Your task to perform on an android device: toggle priority inbox in the gmail app Image 0: 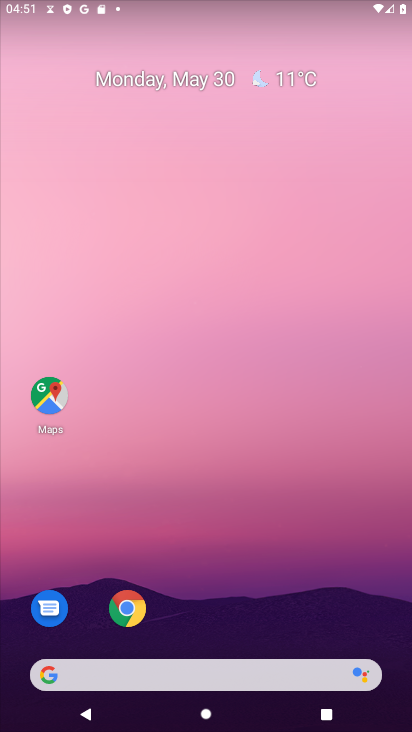
Step 0: drag from (235, 664) to (204, 252)
Your task to perform on an android device: toggle priority inbox in the gmail app Image 1: 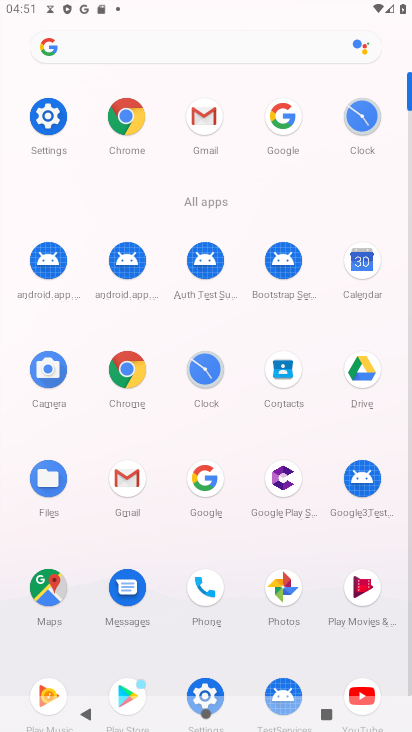
Step 1: click (200, 117)
Your task to perform on an android device: toggle priority inbox in the gmail app Image 2: 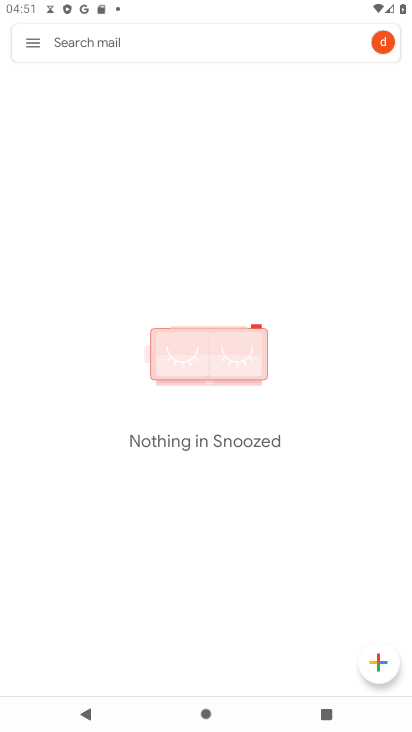
Step 2: click (34, 40)
Your task to perform on an android device: toggle priority inbox in the gmail app Image 3: 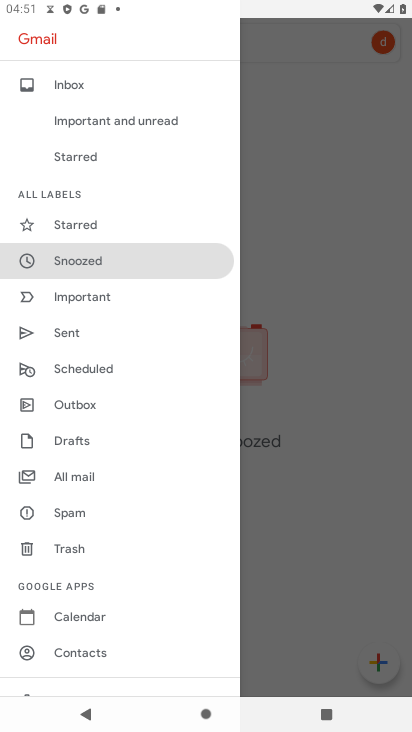
Step 3: drag from (91, 642) to (110, 289)
Your task to perform on an android device: toggle priority inbox in the gmail app Image 4: 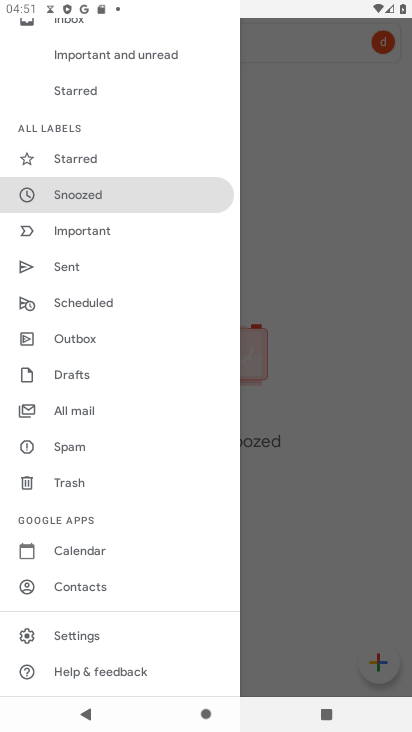
Step 4: click (57, 639)
Your task to perform on an android device: toggle priority inbox in the gmail app Image 5: 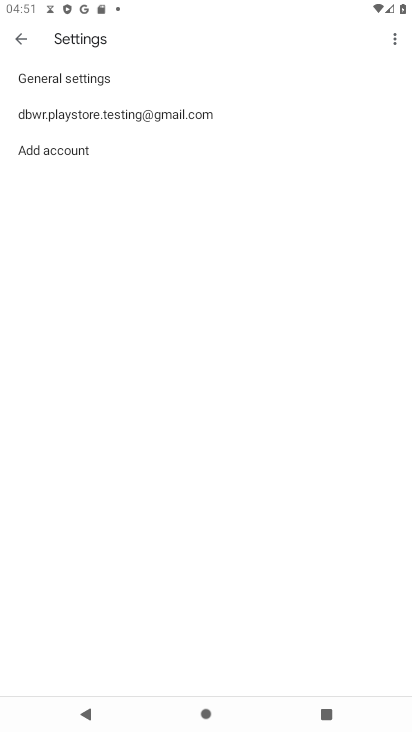
Step 5: click (115, 103)
Your task to perform on an android device: toggle priority inbox in the gmail app Image 6: 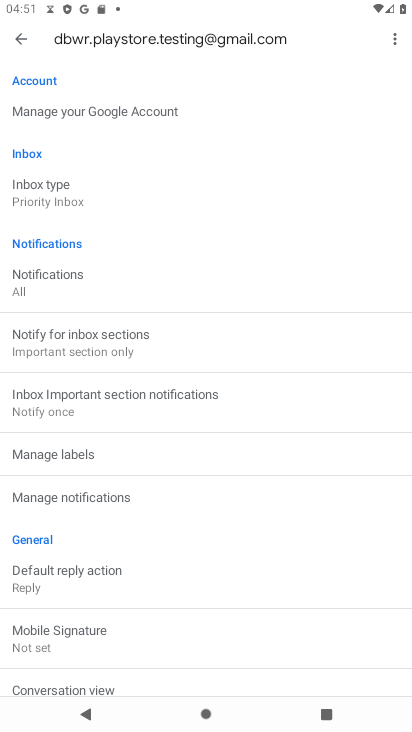
Step 6: click (55, 196)
Your task to perform on an android device: toggle priority inbox in the gmail app Image 7: 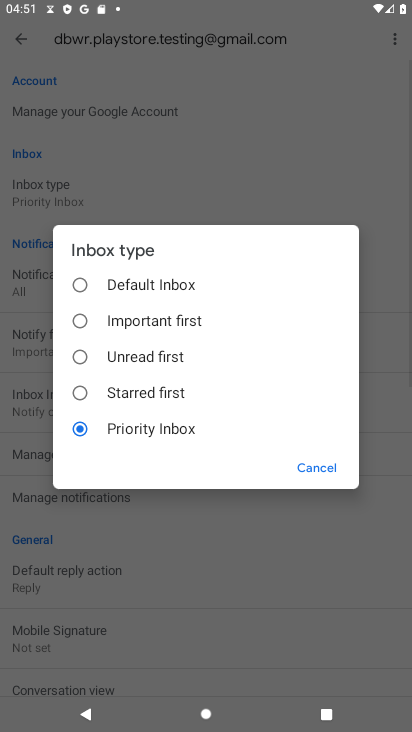
Step 7: click (113, 386)
Your task to perform on an android device: toggle priority inbox in the gmail app Image 8: 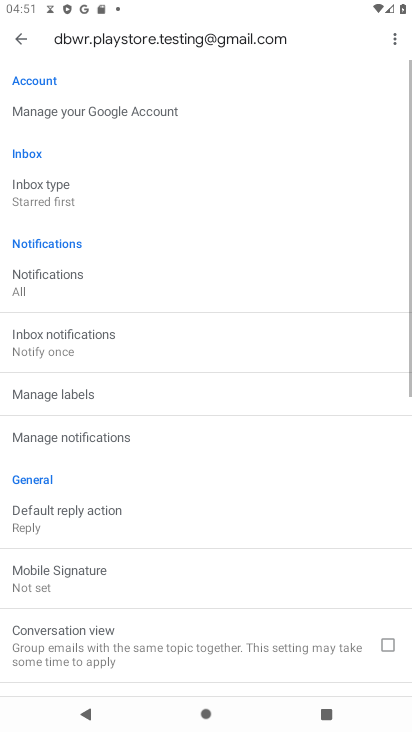
Step 8: task complete